Your task to perform on an android device: What is the capital of Sweden? Image 0: 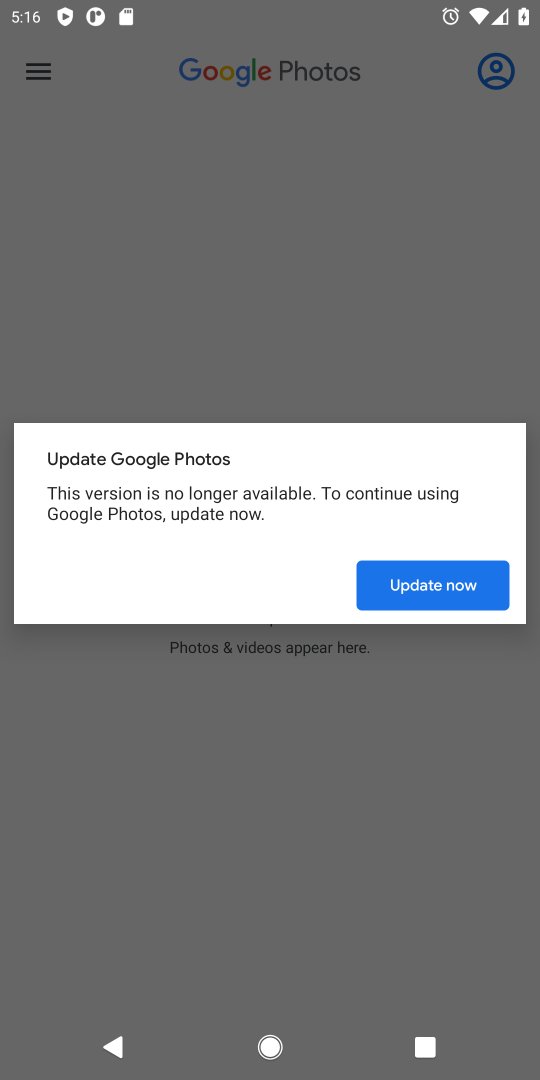
Step 0: press home button
Your task to perform on an android device: What is the capital of Sweden? Image 1: 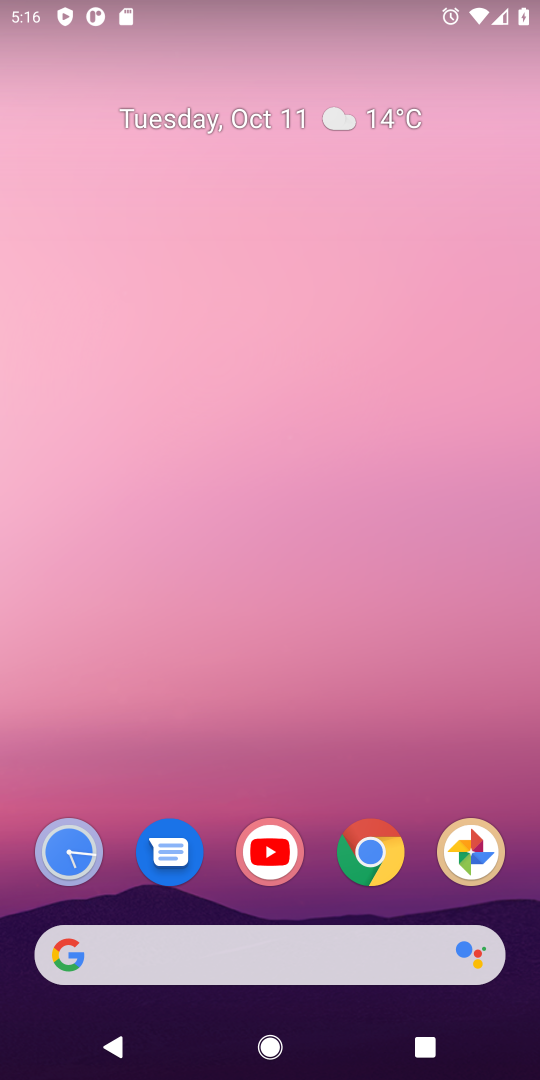
Step 1: click (381, 842)
Your task to perform on an android device: What is the capital of Sweden? Image 2: 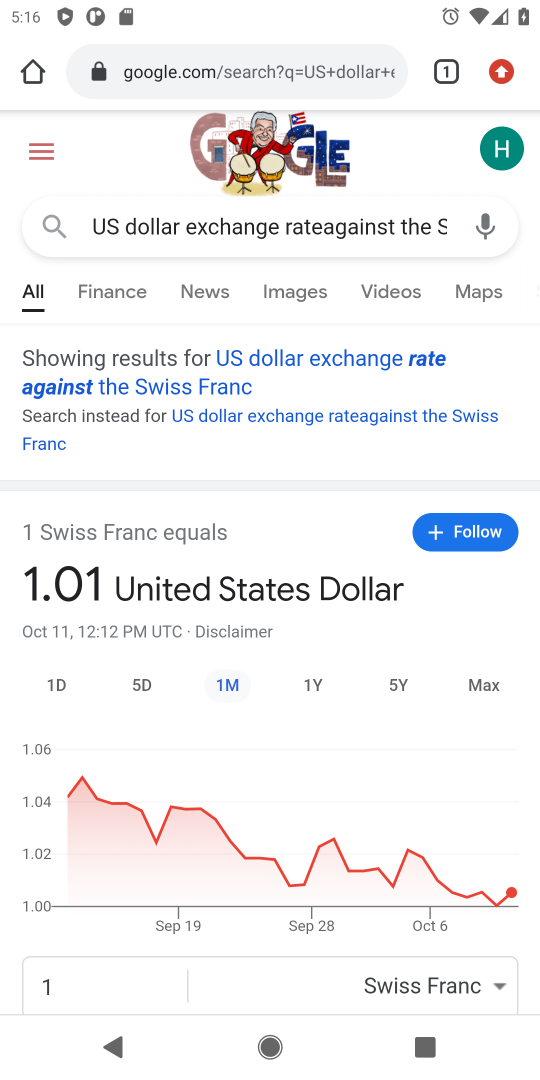
Step 2: click (285, 62)
Your task to perform on an android device: What is the capital of Sweden? Image 3: 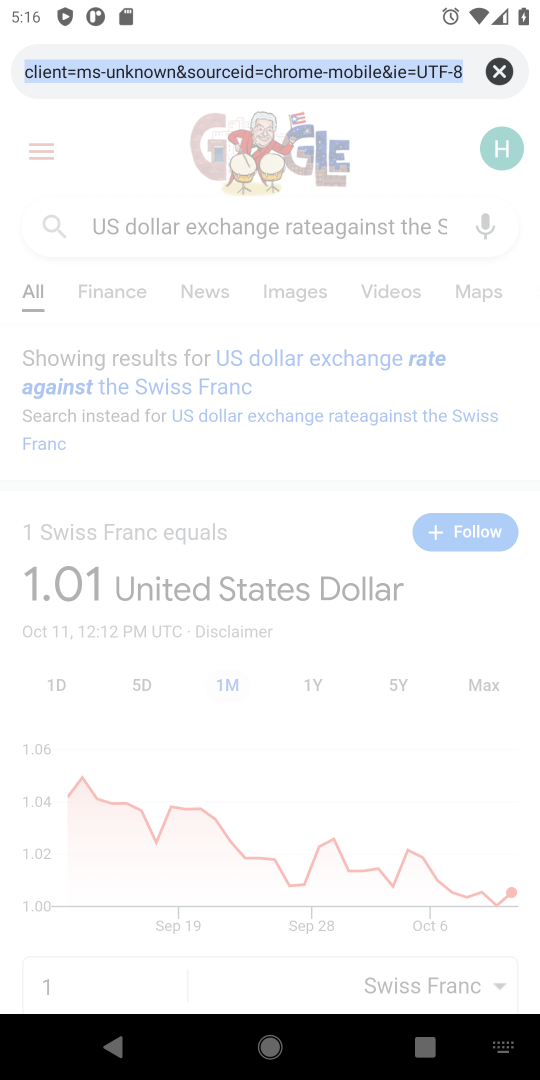
Step 3: type "capital of Sweden"
Your task to perform on an android device: What is the capital of Sweden? Image 4: 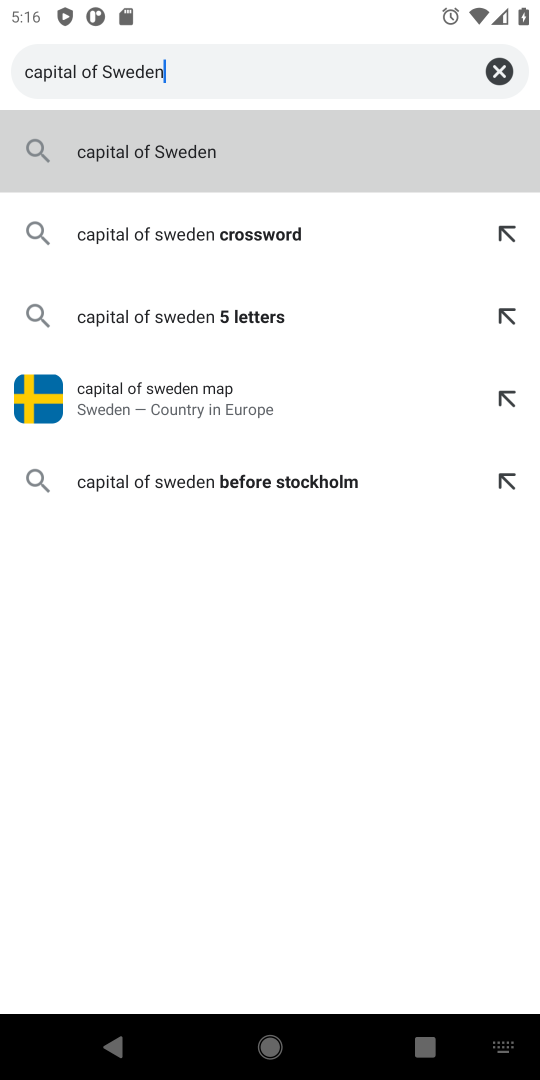
Step 4: click (275, 158)
Your task to perform on an android device: What is the capital of Sweden? Image 5: 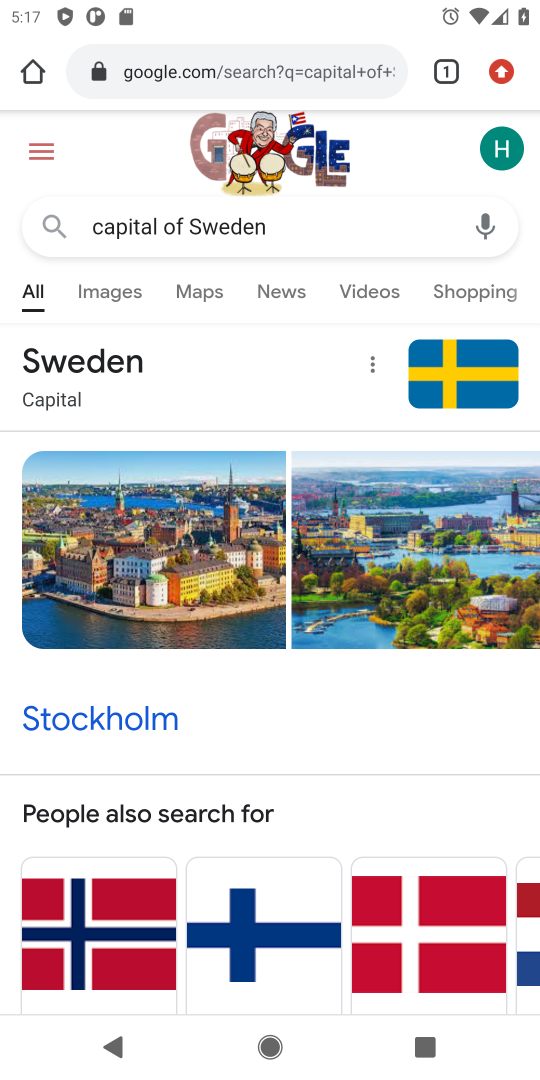
Step 5: task complete